Your task to perform on an android device: Open accessibility settings Image 0: 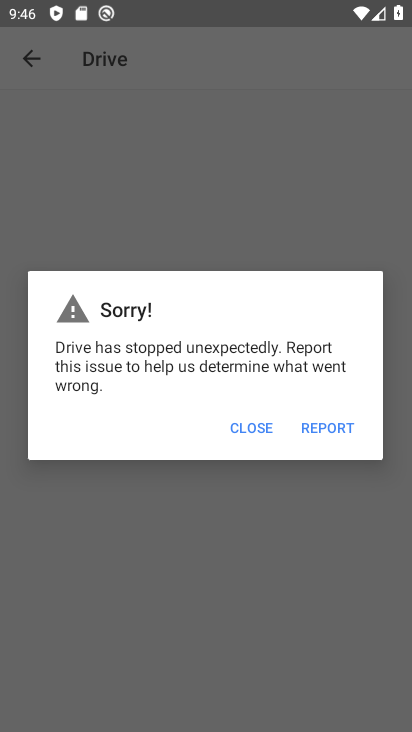
Step 0: press home button
Your task to perform on an android device: Open accessibility settings Image 1: 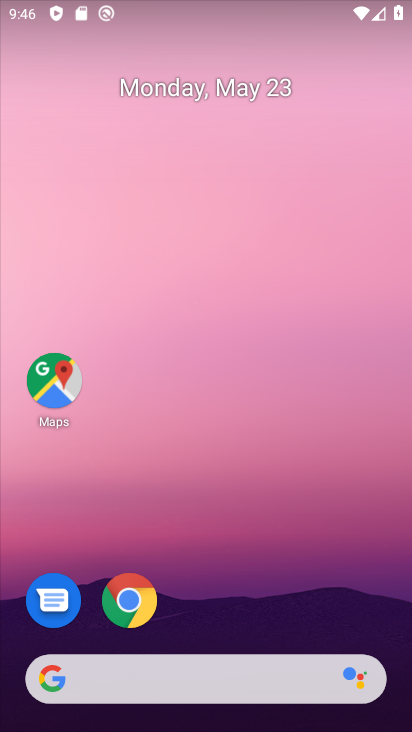
Step 1: drag from (267, 633) to (236, 111)
Your task to perform on an android device: Open accessibility settings Image 2: 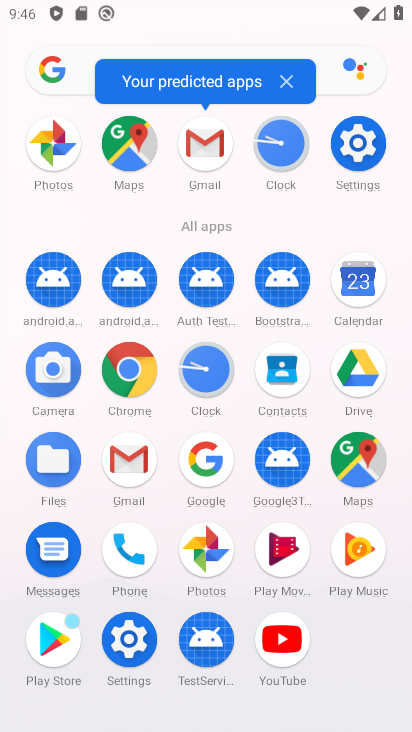
Step 2: click (359, 139)
Your task to perform on an android device: Open accessibility settings Image 3: 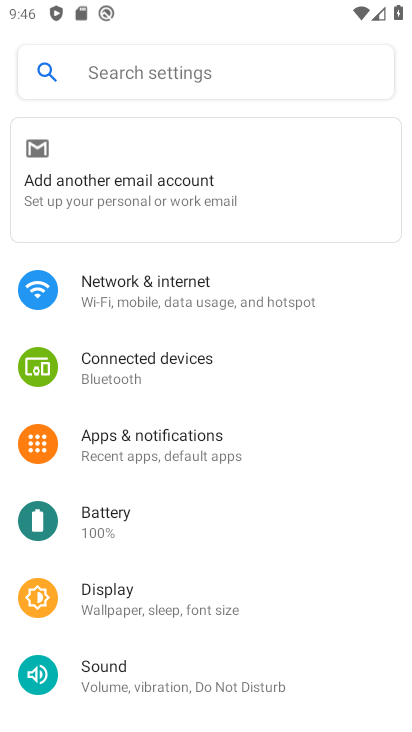
Step 3: drag from (185, 637) to (160, 101)
Your task to perform on an android device: Open accessibility settings Image 4: 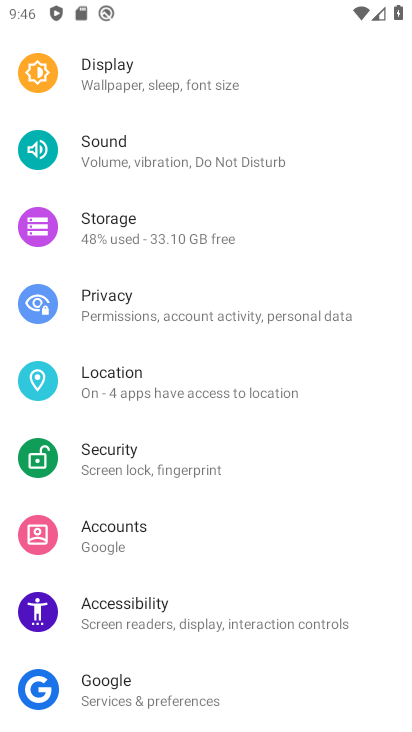
Step 4: click (219, 610)
Your task to perform on an android device: Open accessibility settings Image 5: 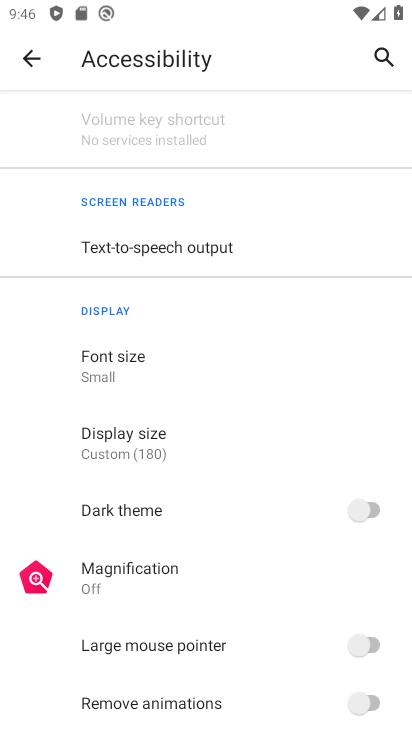
Step 5: task complete